Your task to perform on an android device: check android version Image 0: 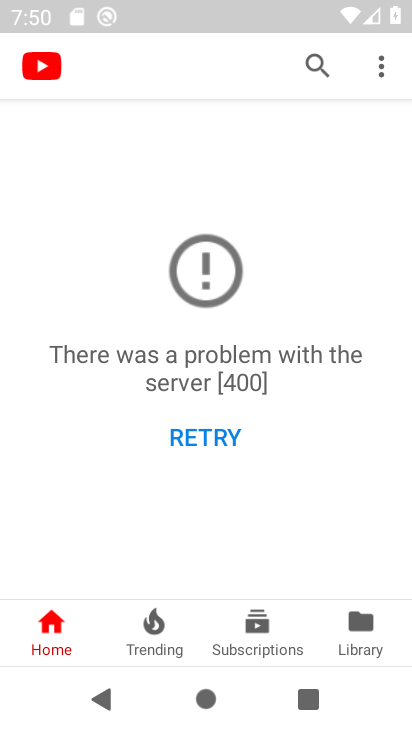
Step 0: press back button
Your task to perform on an android device: check android version Image 1: 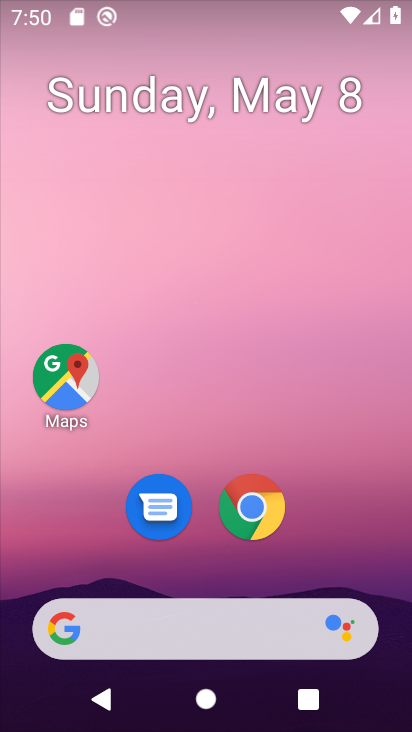
Step 1: drag from (181, 557) to (189, 157)
Your task to perform on an android device: check android version Image 2: 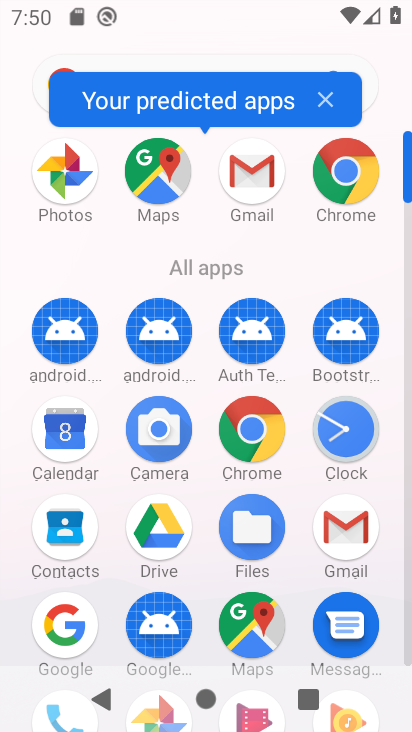
Step 2: drag from (202, 604) to (208, 323)
Your task to perform on an android device: check android version Image 3: 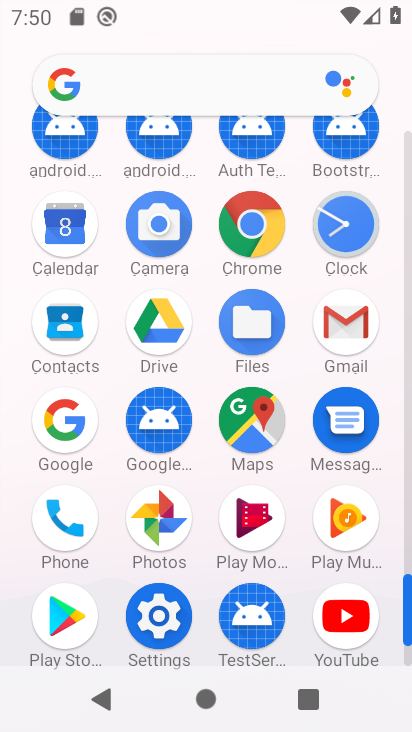
Step 3: click (135, 611)
Your task to perform on an android device: check android version Image 4: 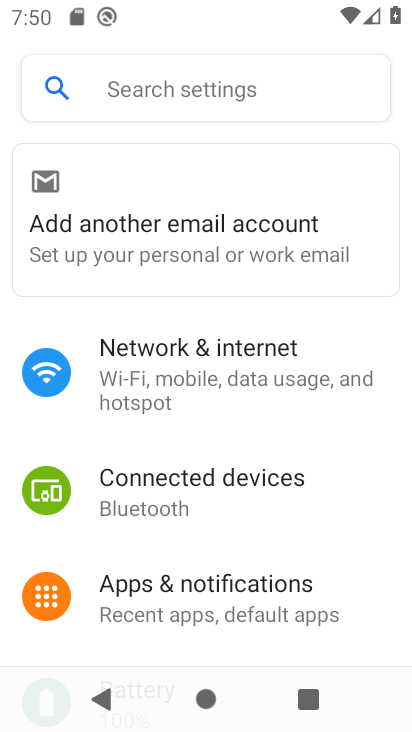
Step 4: drag from (226, 616) to (228, 21)
Your task to perform on an android device: check android version Image 5: 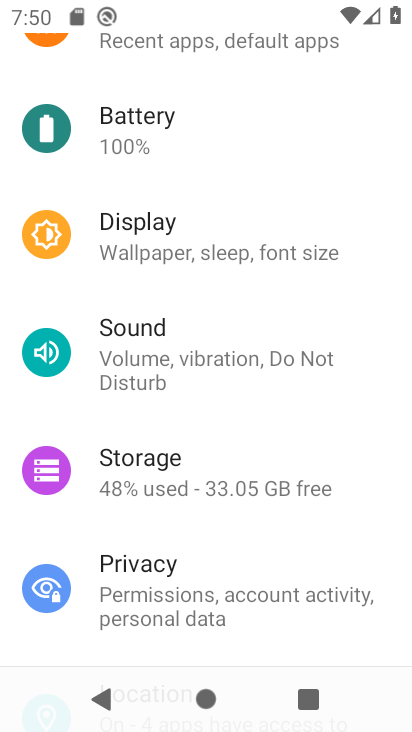
Step 5: drag from (241, 569) to (238, 248)
Your task to perform on an android device: check android version Image 6: 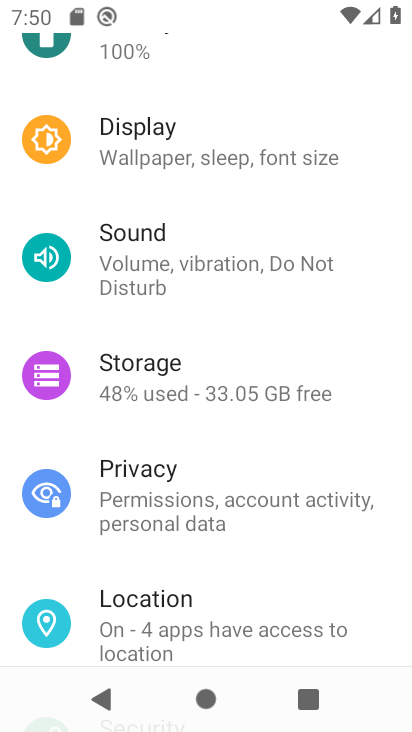
Step 6: drag from (217, 535) to (279, 175)
Your task to perform on an android device: check android version Image 7: 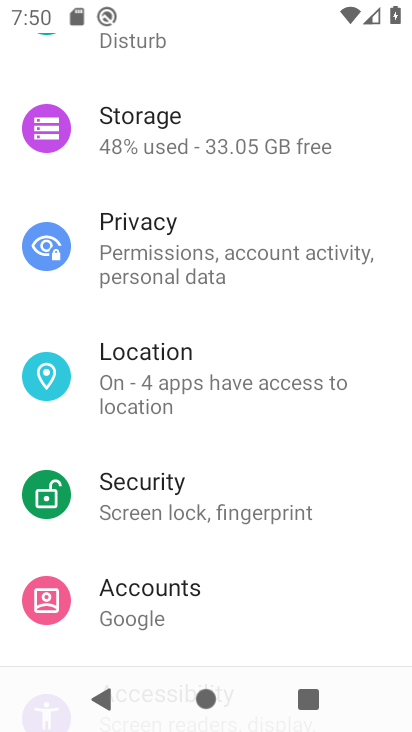
Step 7: drag from (238, 559) to (263, 227)
Your task to perform on an android device: check android version Image 8: 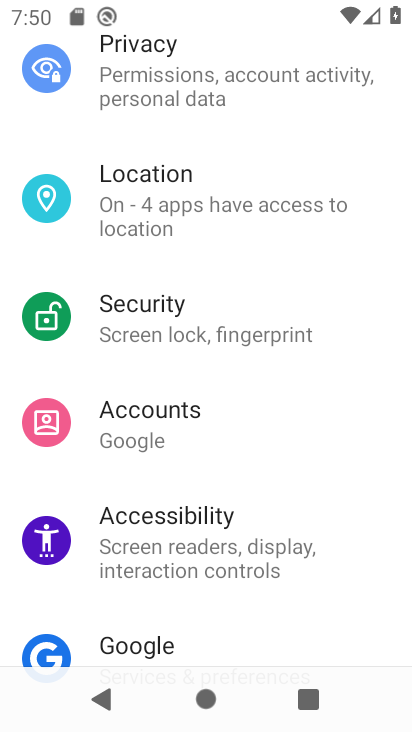
Step 8: drag from (242, 576) to (243, 281)
Your task to perform on an android device: check android version Image 9: 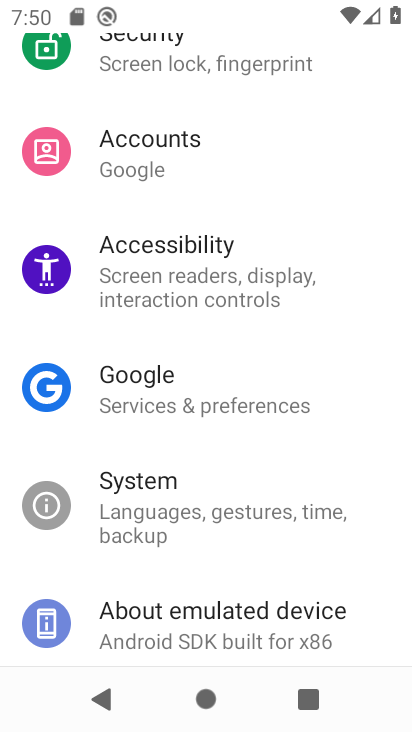
Step 9: drag from (241, 642) to (238, 201)
Your task to perform on an android device: check android version Image 10: 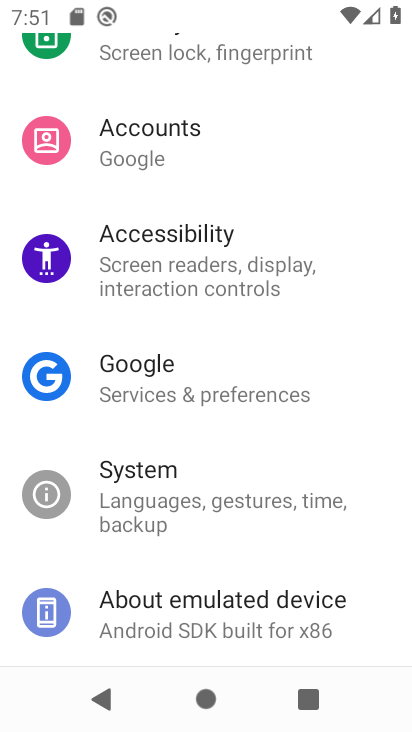
Step 10: click (177, 592)
Your task to perform on an android device: check android version Image 11: 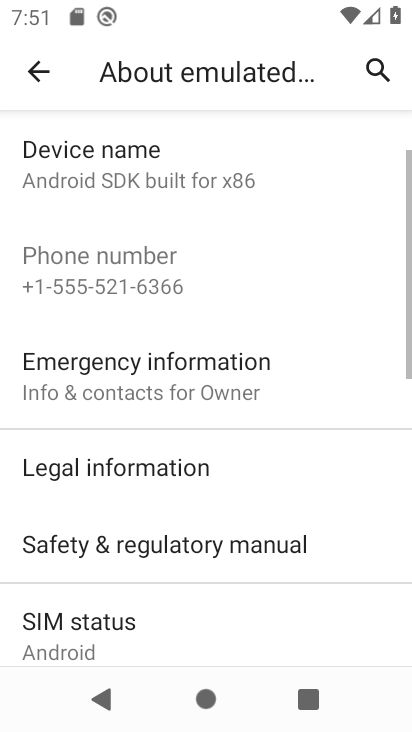
Step 11: drag from (202, 534) to (236, 182)
Your task to perform on an android device: check android version Image 12: 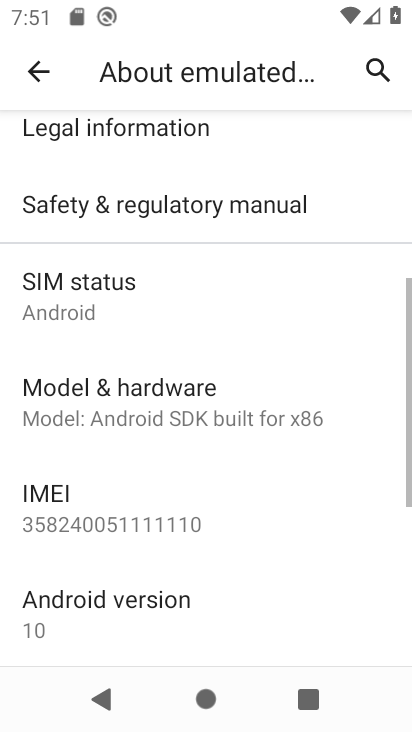
Step 12: click (124, 613)
Your task to perform on an android device: check android version Image 13: 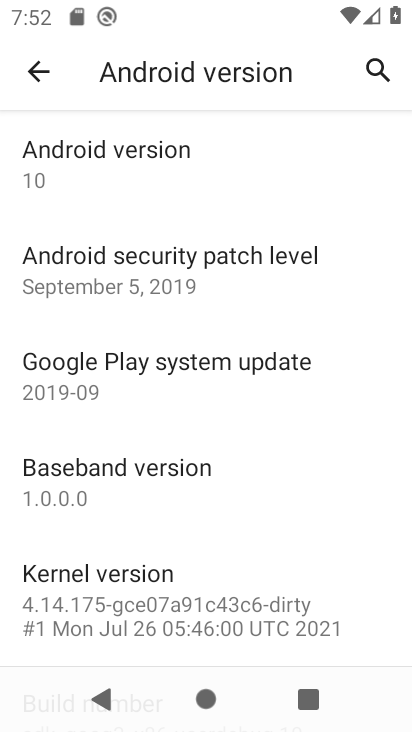
Step 13: click (180, 184)
Your task to perform on an android device: check android version Image 14: 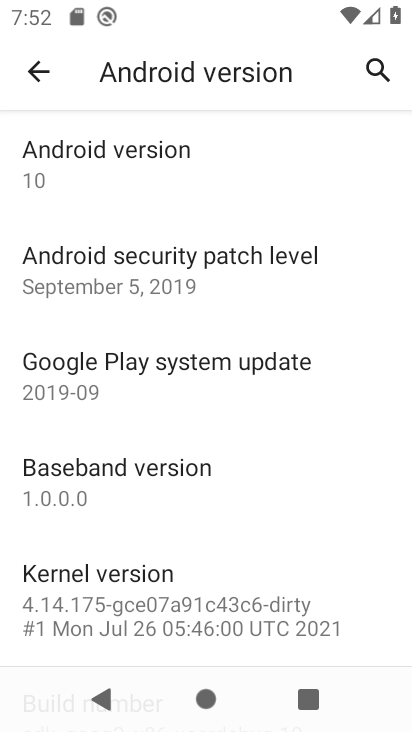
Step 14: task complete